Your task to perform on an android device: turn off javascript in the chrome app Image 0: 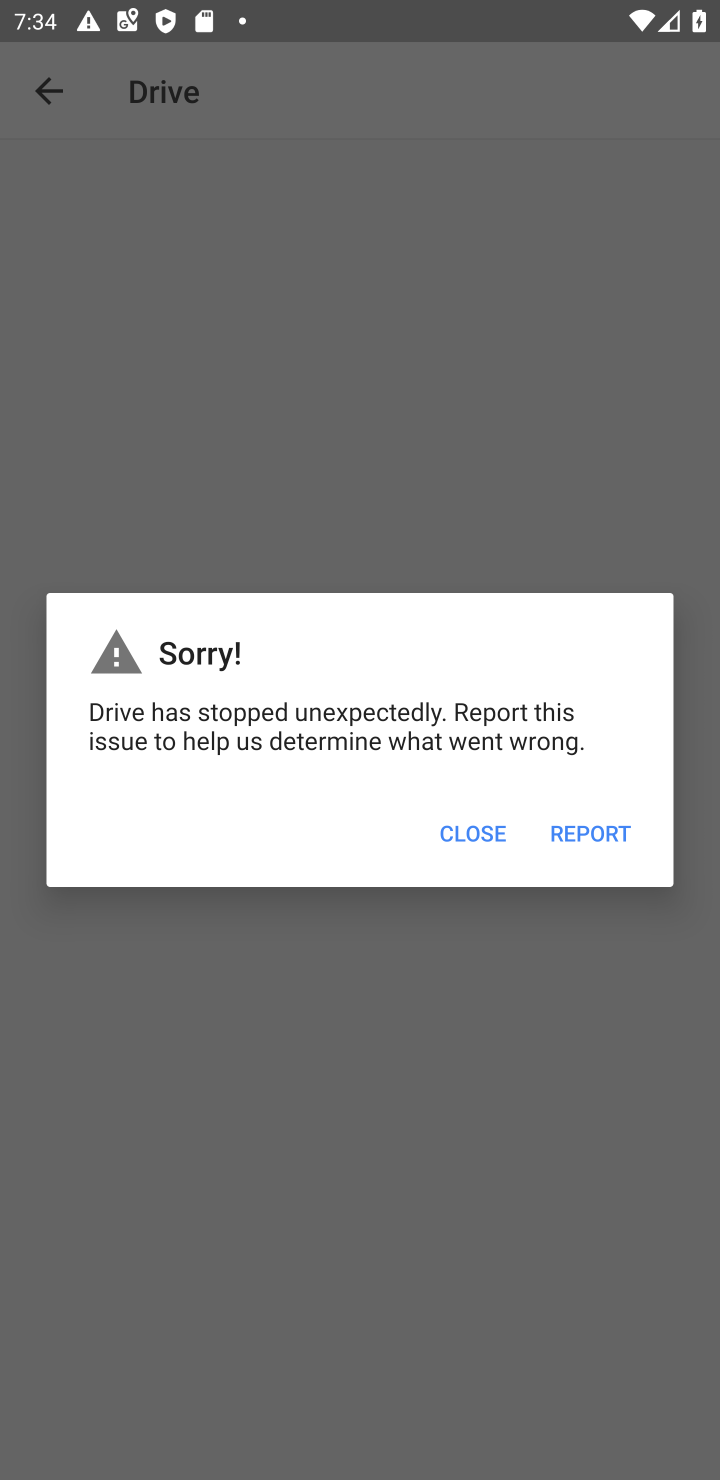
Step 0: press home button
Your task to perform on an android device: turn off javascript in the chrome app Image 1: 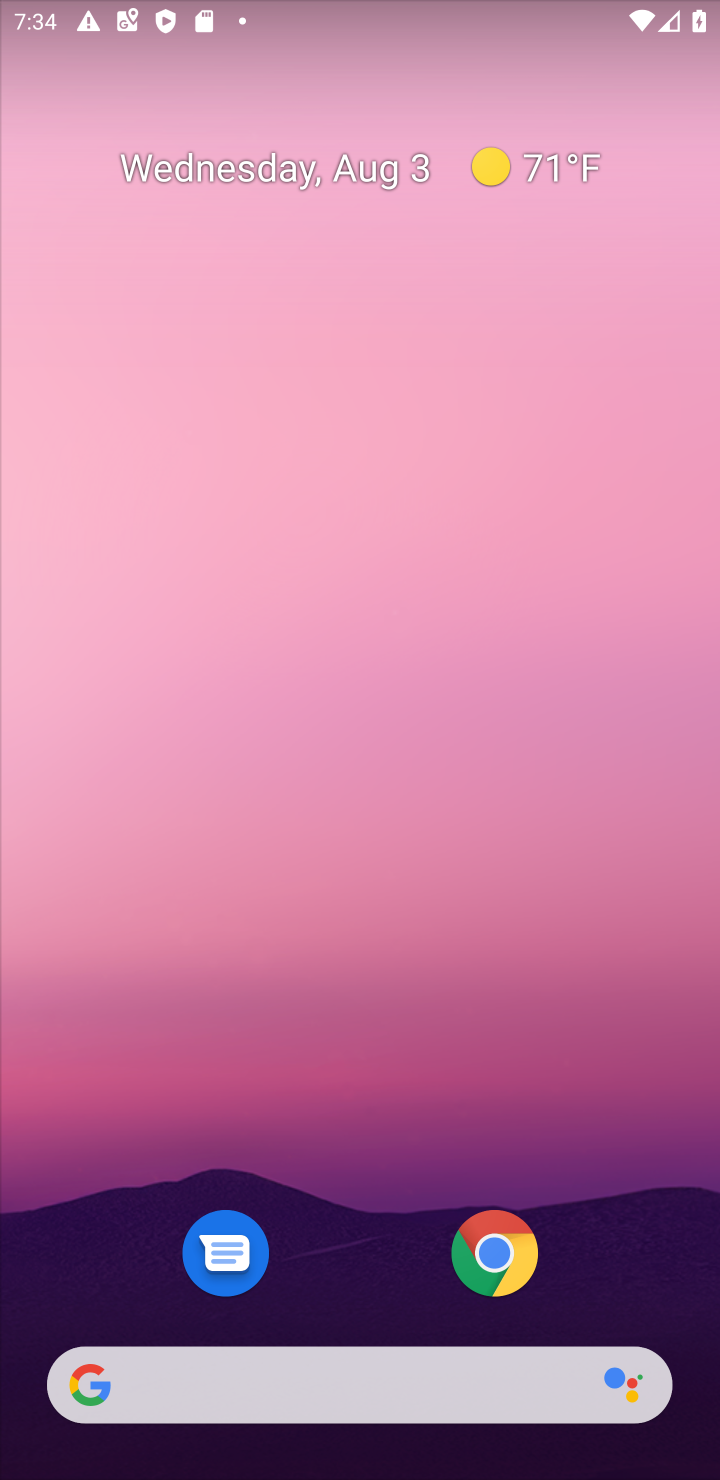
Step 1: click (490, 1255)
Your task to perform on an android device: turn off javascript in the chrome app Image 2: 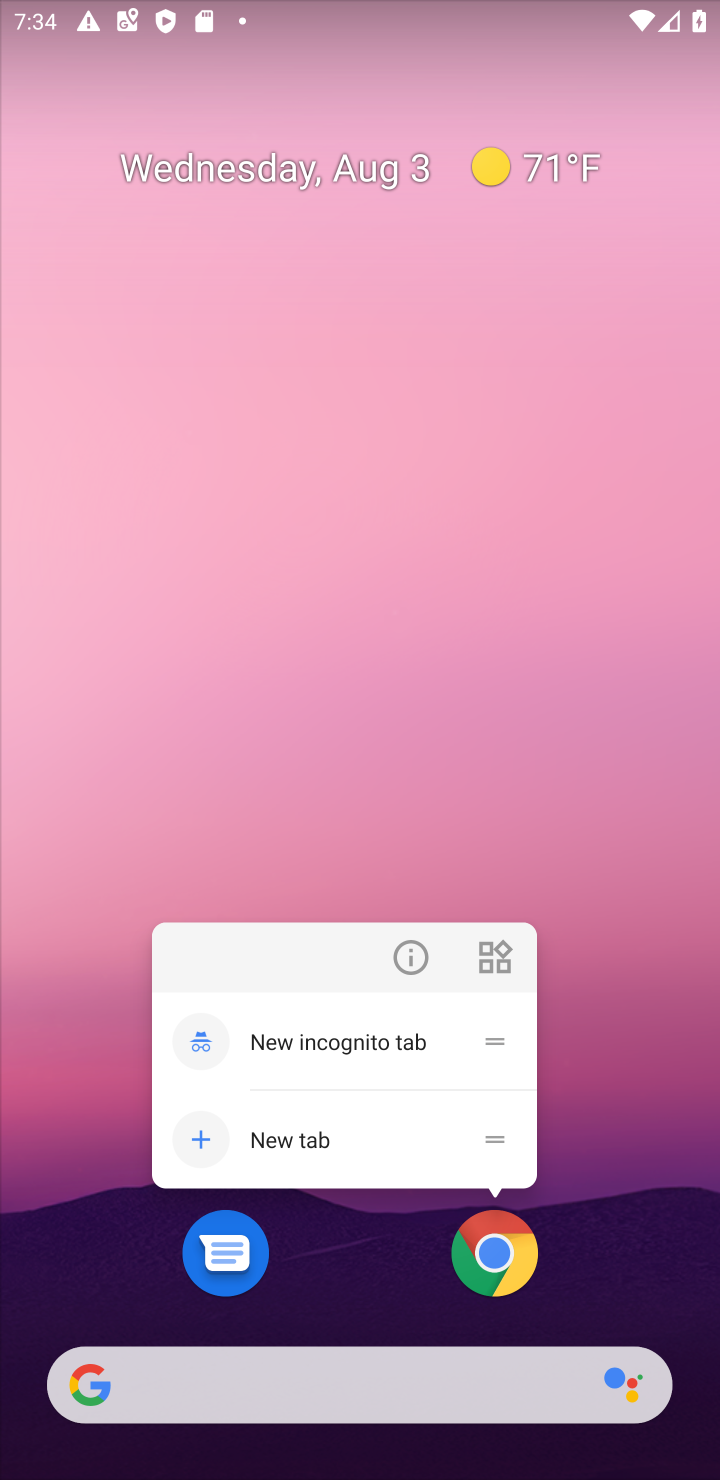
Step 2: click (477, 1269)
Your task to perform on an android device: turn off javascript in the chrome app Image 3: 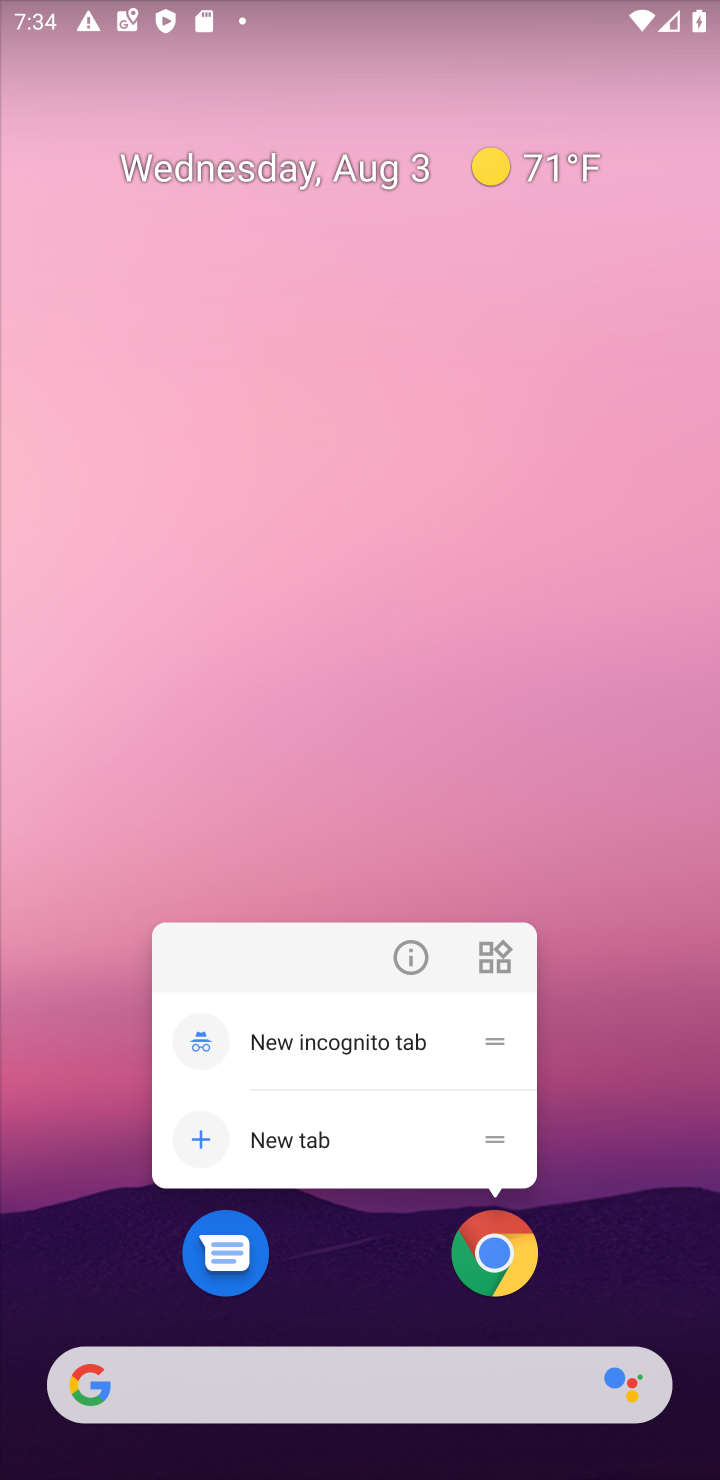
Step 3: click (517, 1247)
Your task to perform on an android device: turn off javascript in the chrome app Image 4: 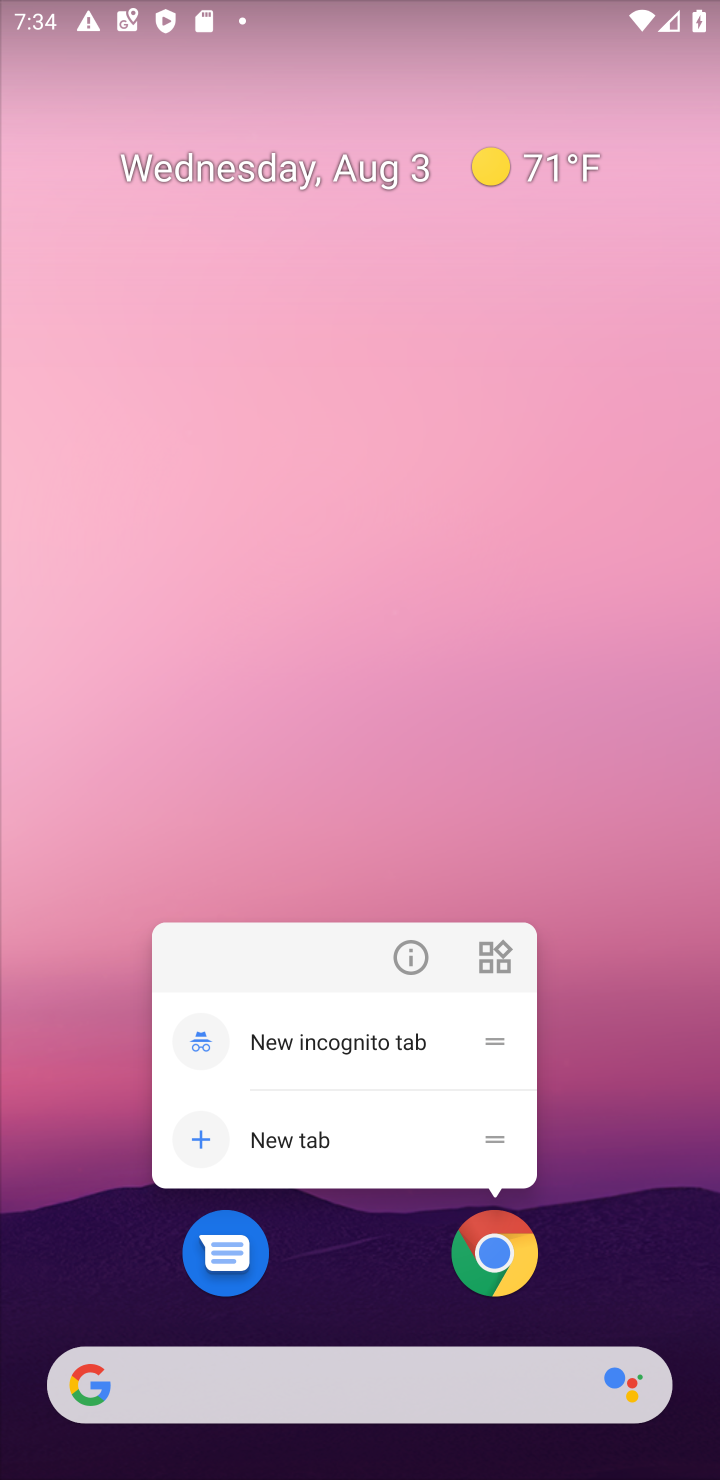
Step 4: click (486, 1266)
Your task to perform on an android device: turn off javascript in the chrome app Image 5: 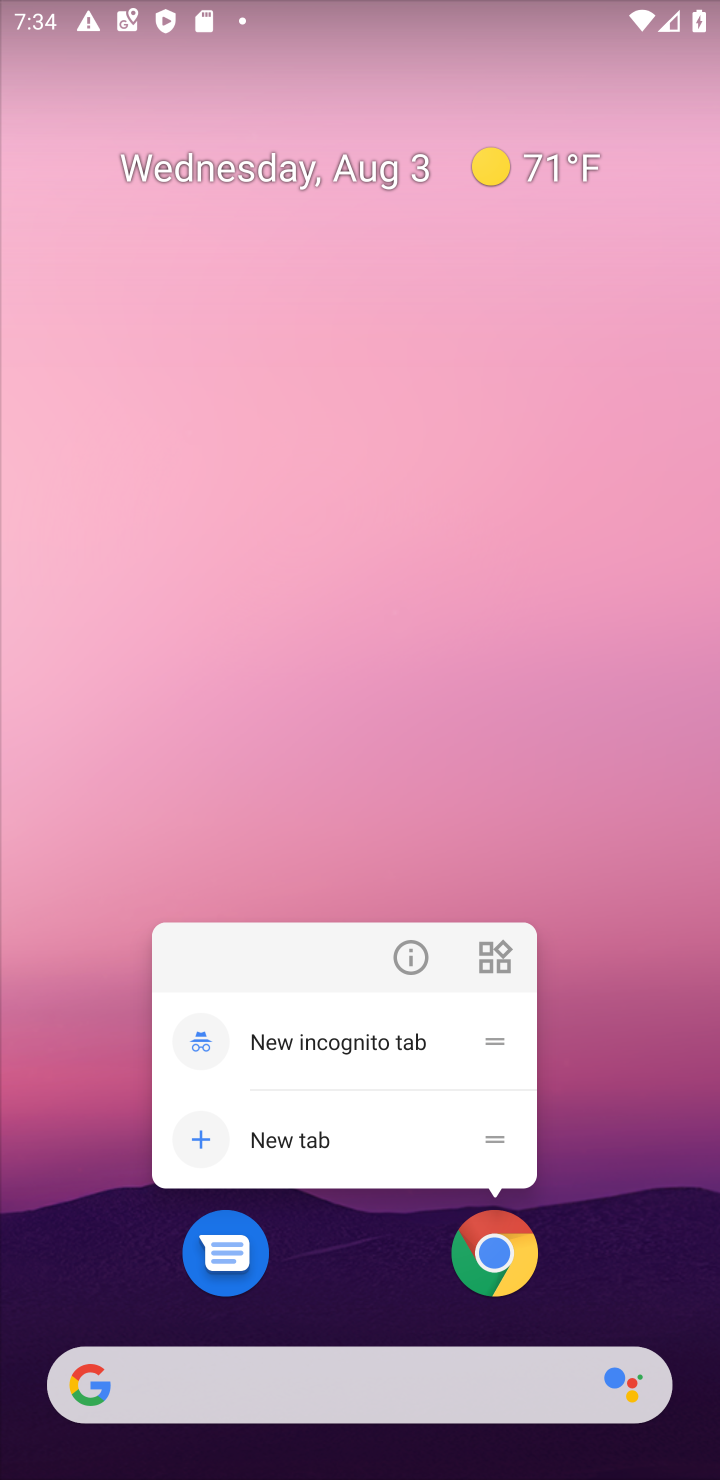
Step 5: click (486, 1266)
Your task to perform on an android device: turn off javascript in the chrome app Image 6: 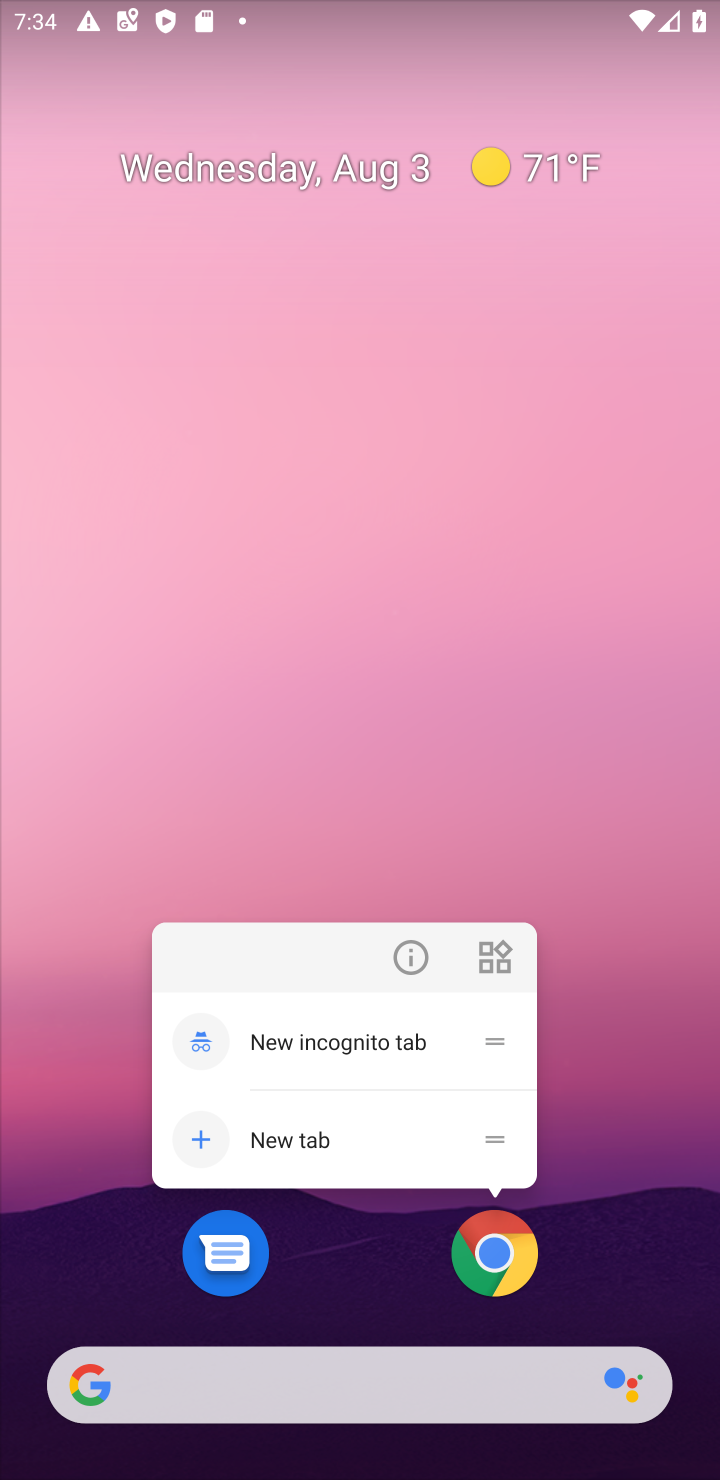
Step 6: click (478, 1261)
Your task to perform on an android device: turn off javascript in the chrome app Image 7: 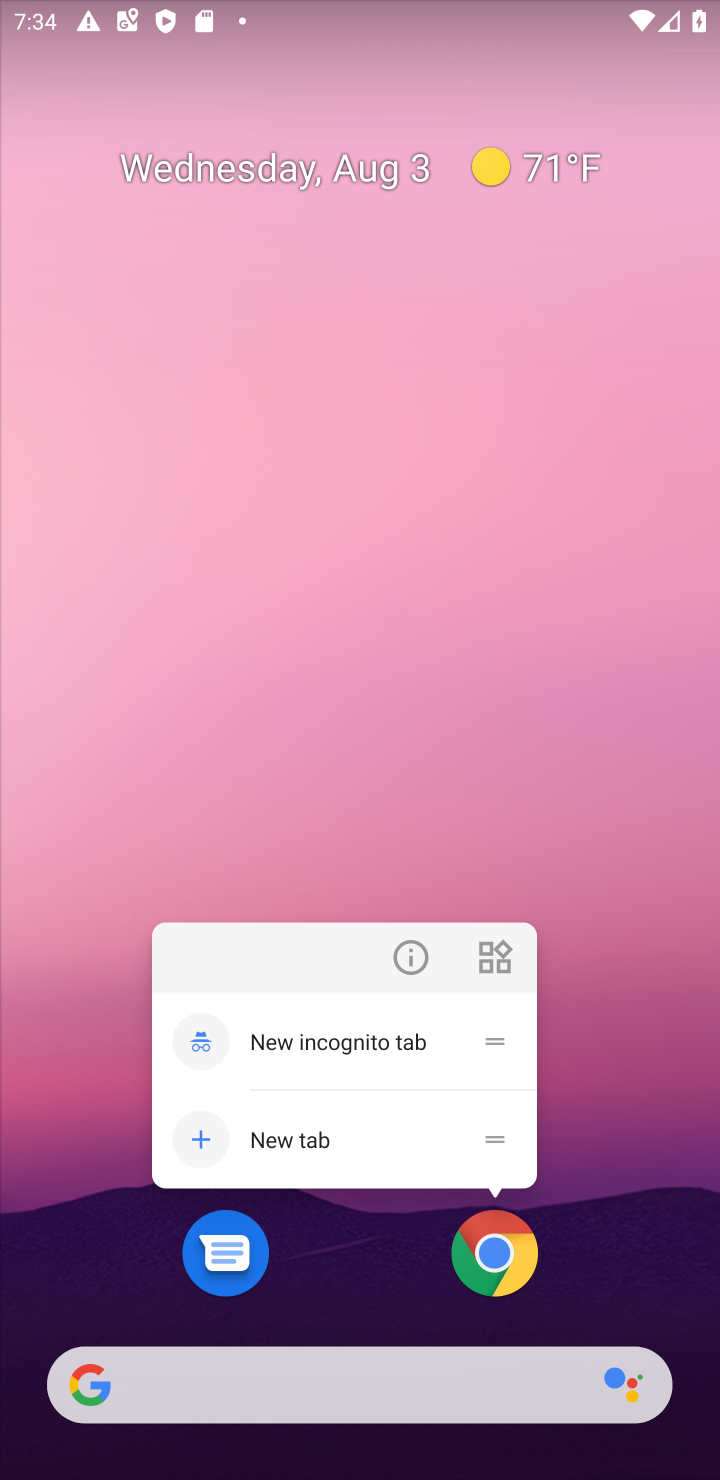
Step 7: click (478, 1261)
Your task to perform on an android device: turn off javascript in the chrome app Image 8: 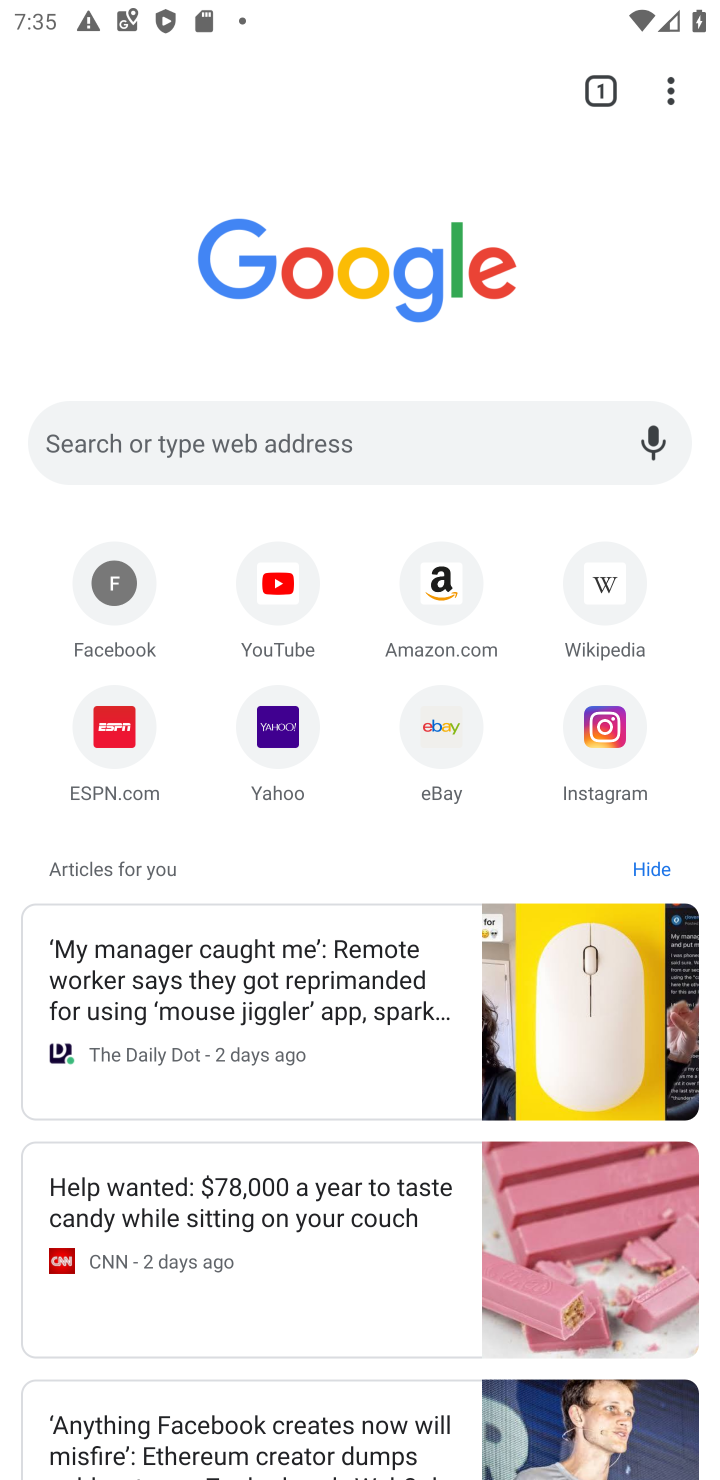
Step 8: drag from (667, 88) to (395, 863)
Your task to perform on an android device: turn off javascript in the chrome app Image 9: 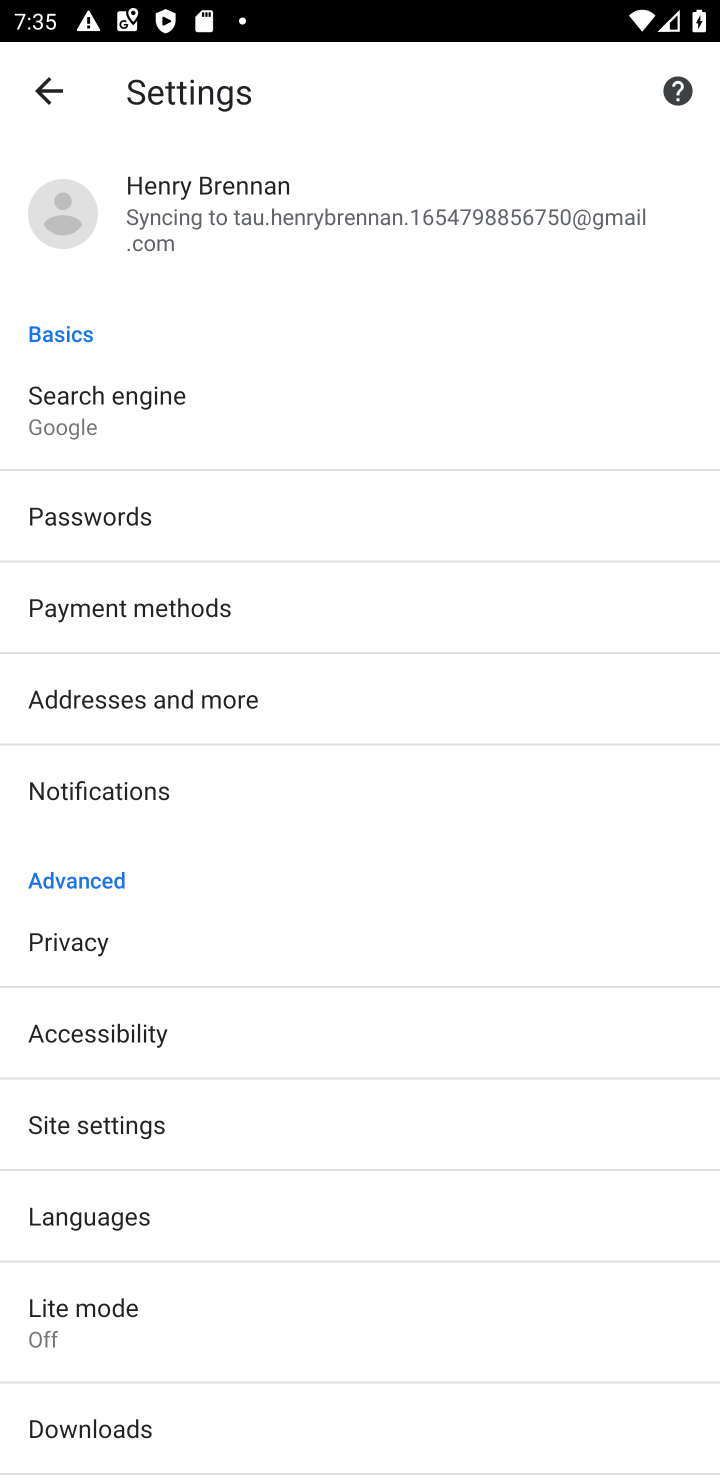
Step 9: click (141, 1133)
Your task to perform on an android device: turn off javascript in the chrome app Image 10: 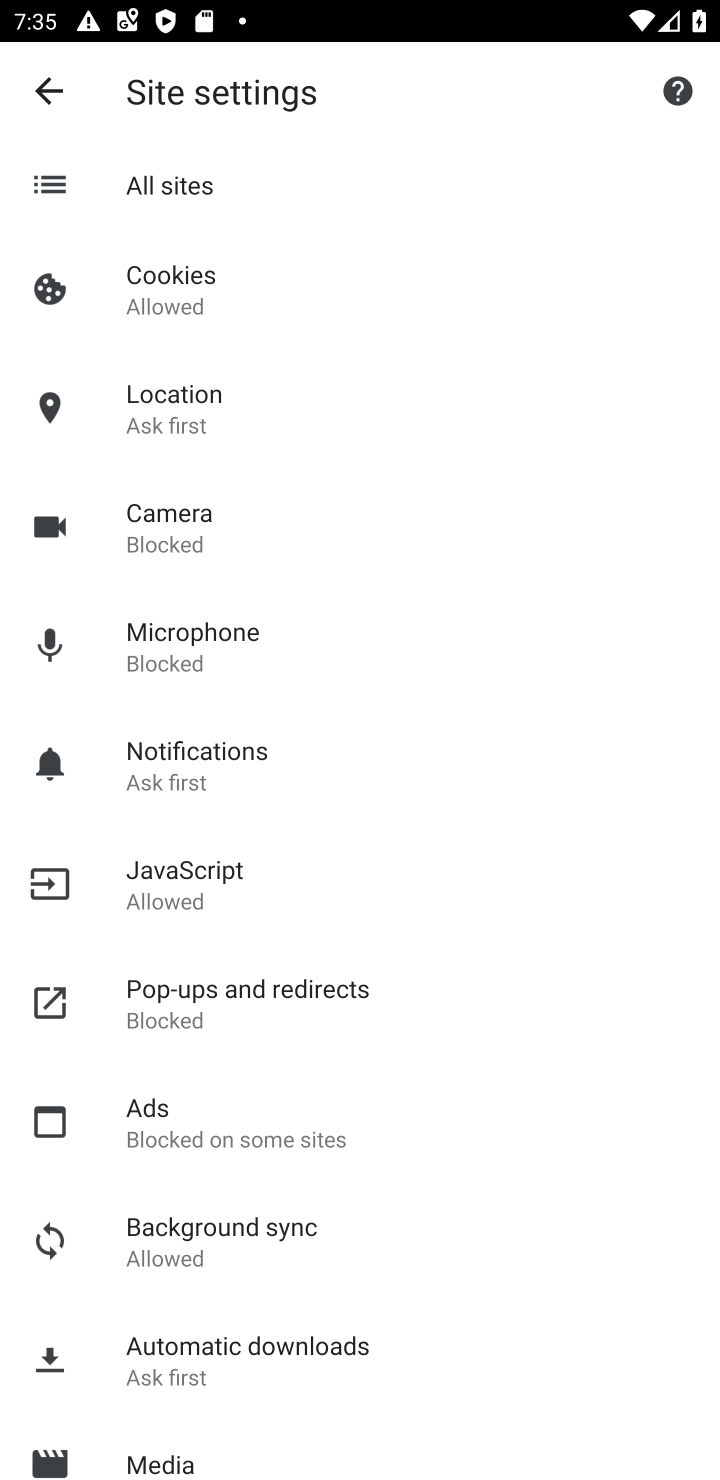
Step 10: click (149, 885)
Your task to perform on an android device: turn off javascript in the chrome app Image 11: 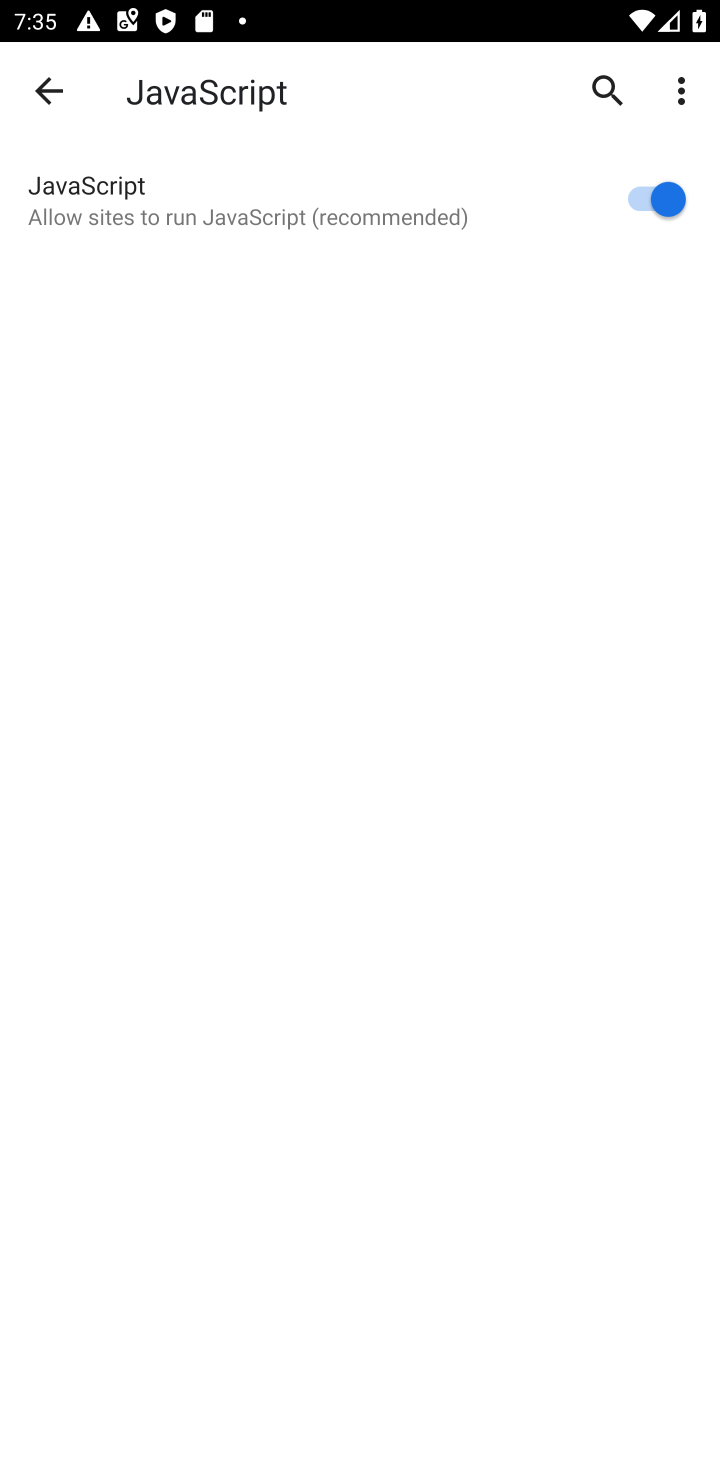
Step 11: click (664, 179)
Your task to perform on an android device: turn off javascript in the chrome app Image 12: 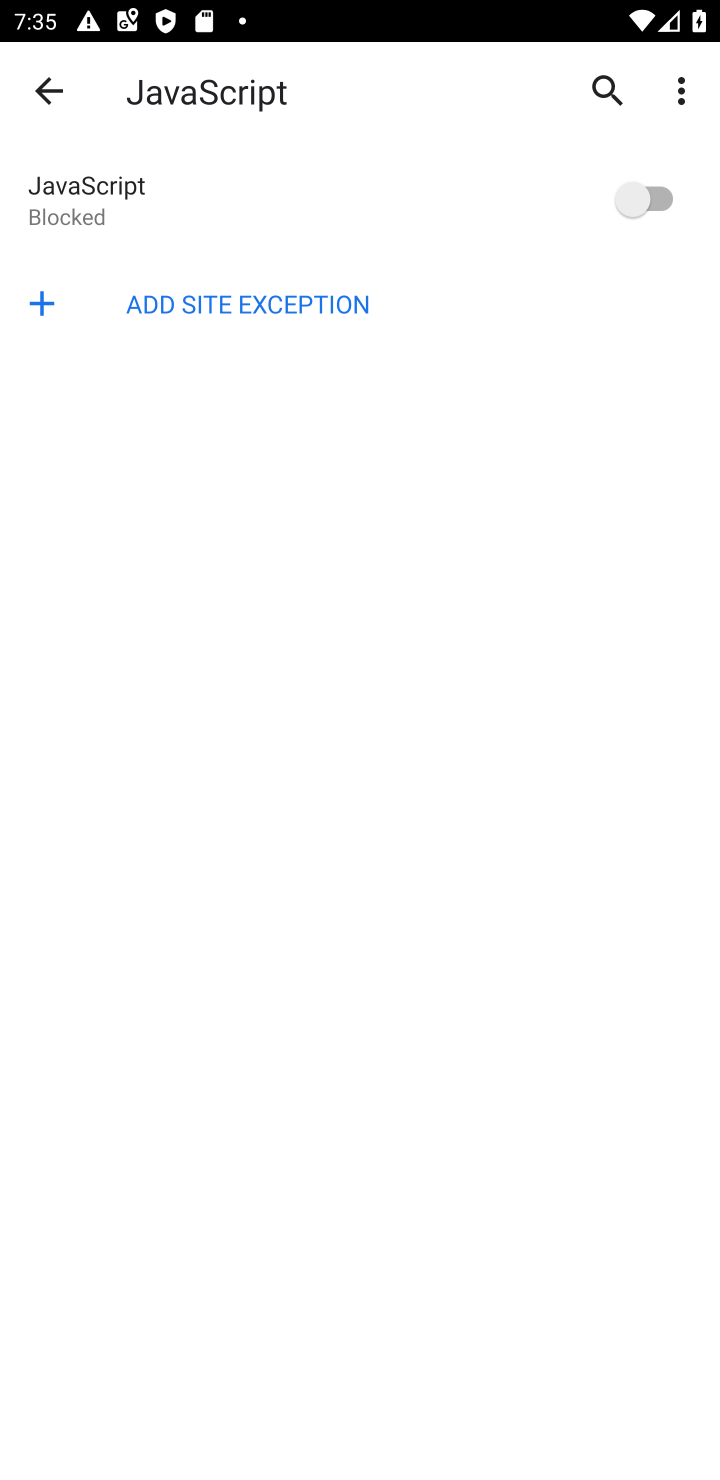
Step 12: task complete